Your task to perform on an android device: What is the recent news? Image 0: 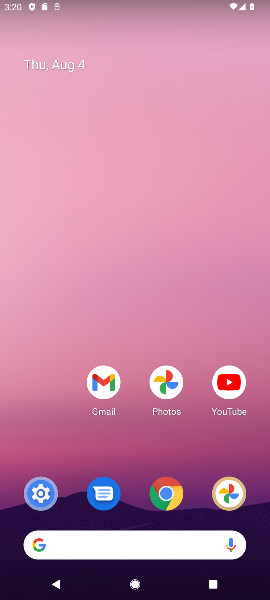
Step 0: drag from (99, 531) to (190, 13)
Your task to perform on an android device: What is the recent news? Image 1: 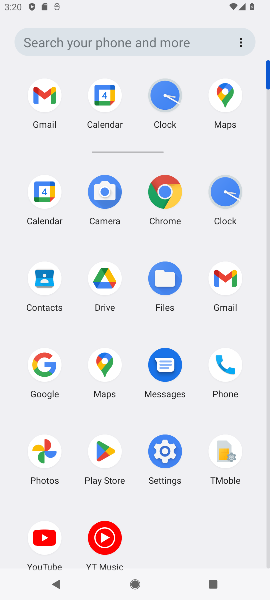
Step 1: click (50, 362)
Your task to perform on an android device: What is the recent news? Image 2: 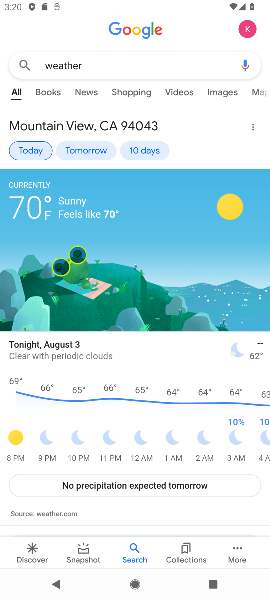
Step 2: click (113, 64)
Your task to perform on an android device: What is the recent news? Image 3: 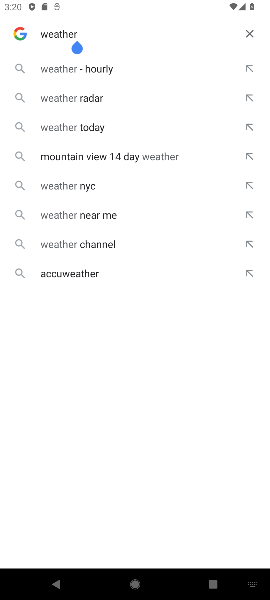
Step 3: click (247, 37)
Your task to perform on an android device: What is the recent news? Image 4: 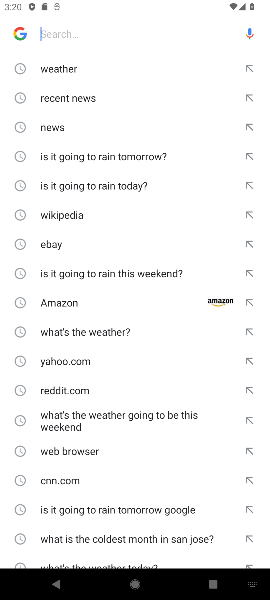
Step 4: click (90, 95)
Your task to perform on an android device: What is the recent news? Image 5: 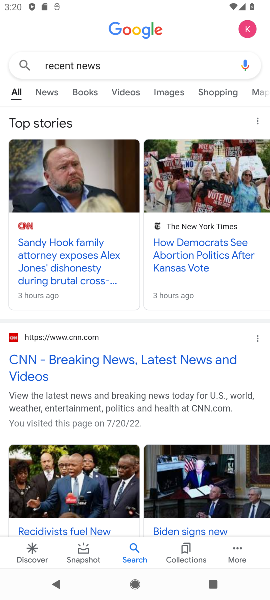
Step 5: task complete